Your task to perform on an android device: Go to Android settings Image 0: 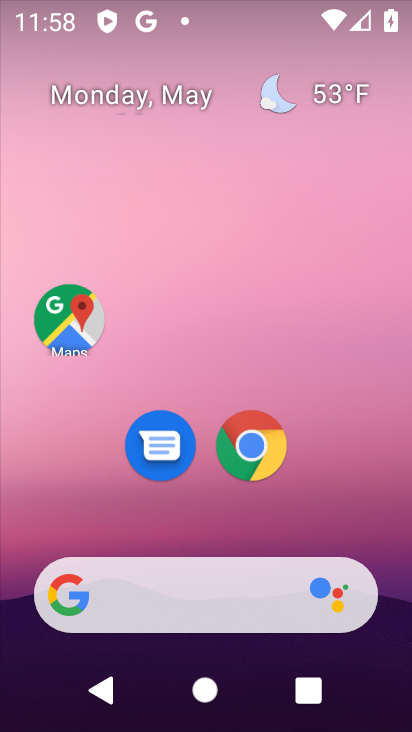
Step 0: click (382, 314)
Your task to perform on an android device: Go to Android settings Image 1: 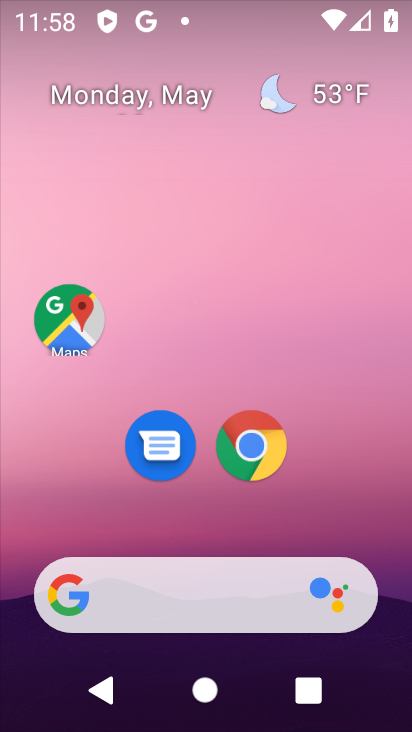
Step 1: drag from (116, 539) to (222, 67)
Your task to perform on an android device: Go to Android settings Image 2: 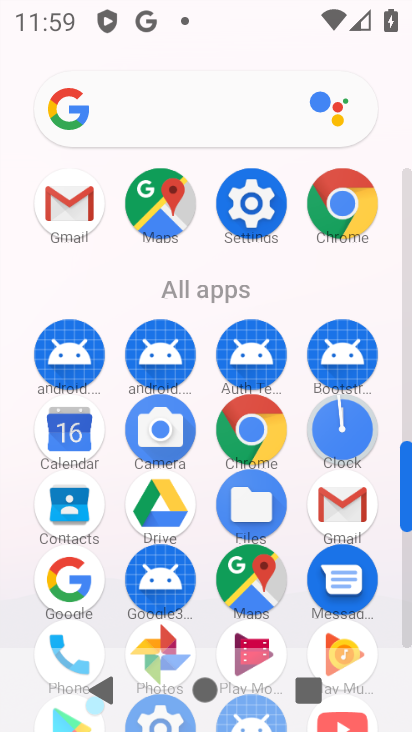
Step 2: drag from (172, 559) to (291, 245)
Your task to perform on an android device: Go to Android settings Image 3: 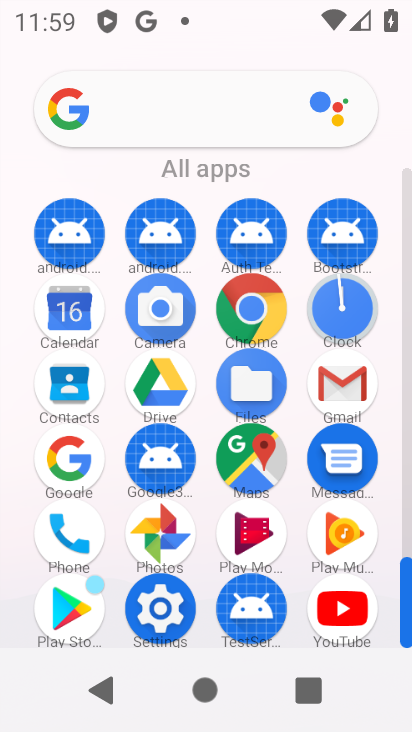
Step 3: click (152, 600)
Your task to perform on an android device: Go to Android settings Image 4: 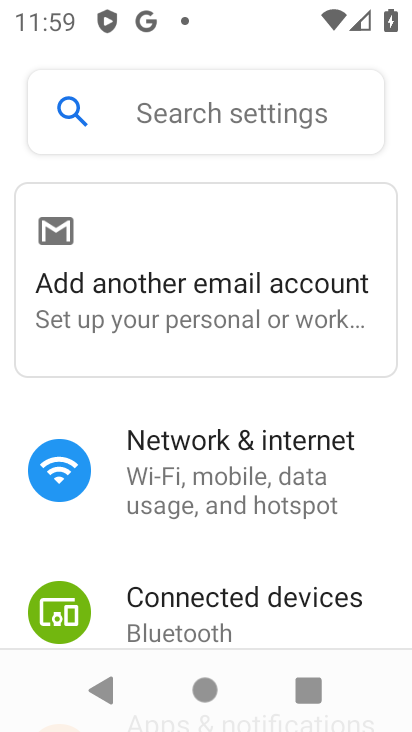
Step 4: task complete